Your task to perform on an android device: Empty the shopping cart on newegg.com. Image 0: 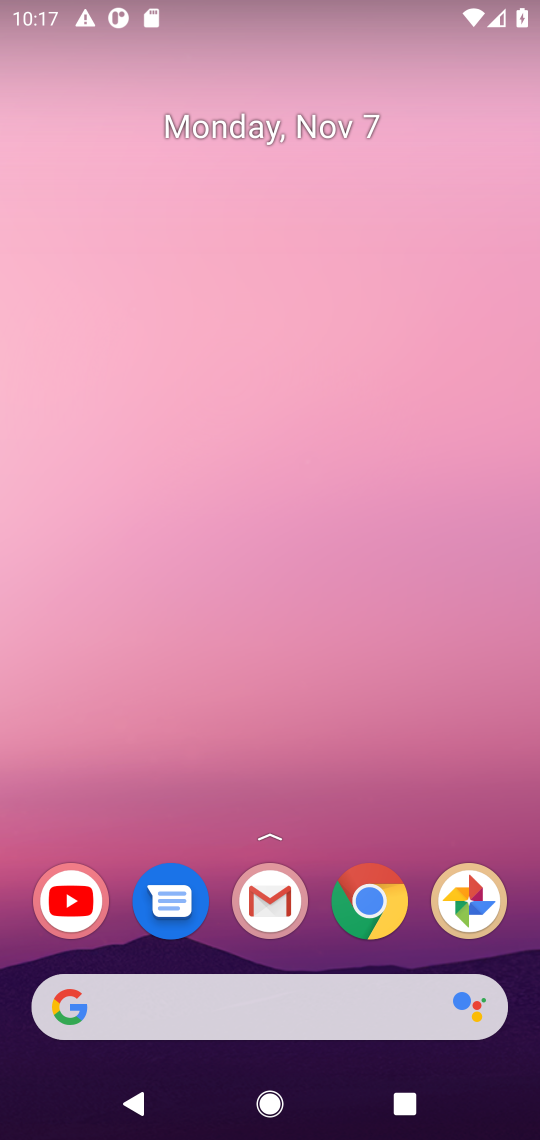
Step 0: click (379, 912)
Your task to perform on an android device: Empty the shopping cart on newegg.com. Image 1: 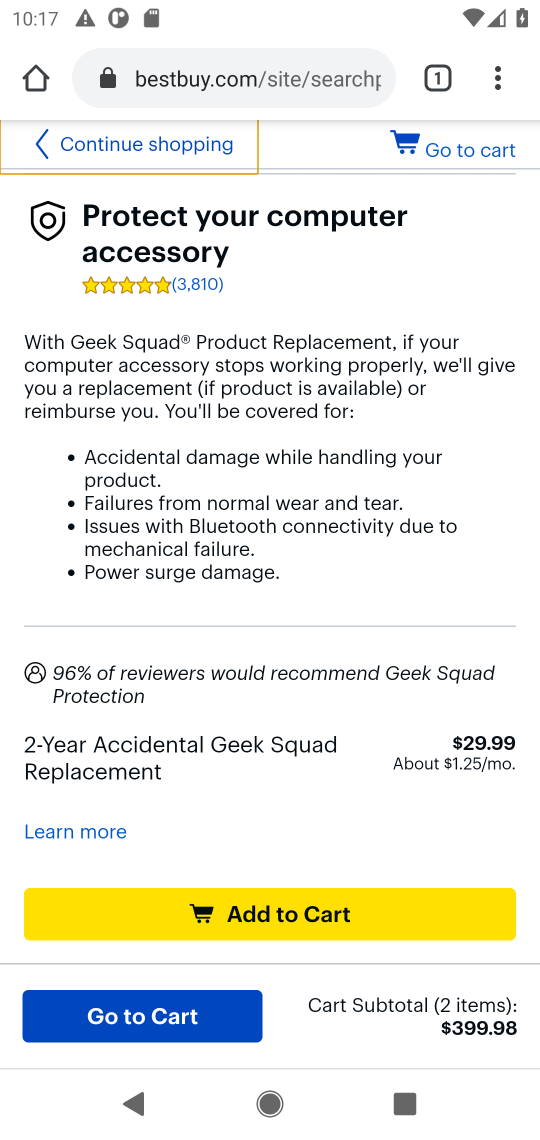
Step 1: click (241, 84)
Your task to perform on an android device: Empty the shopping cart on newegg.com. Image 2: 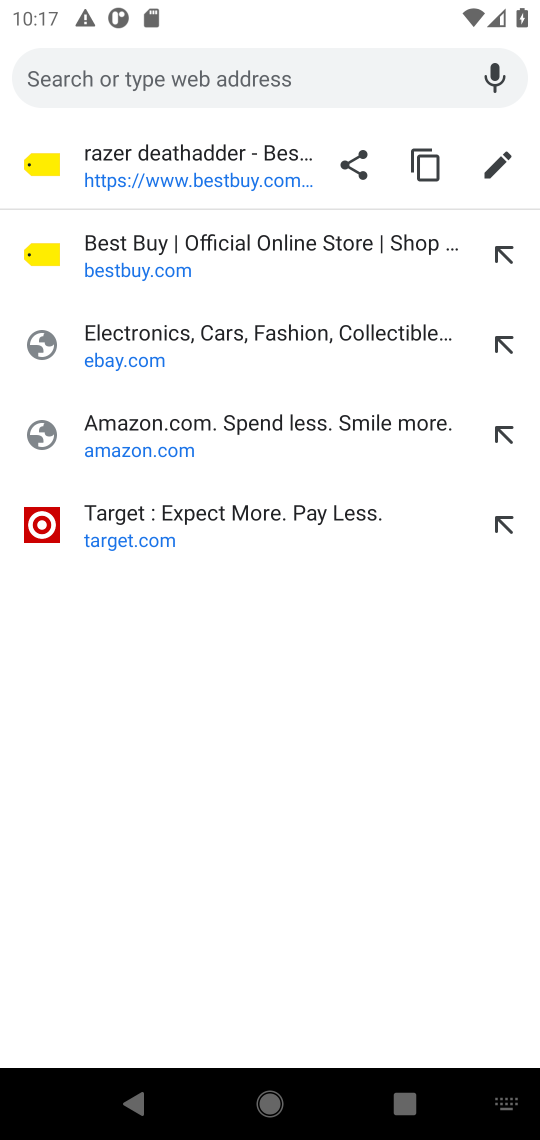
Step 2: type "newegg.com"
Your task to perform on an android device: Empty the shopping cart on newegg.com. Image 3: 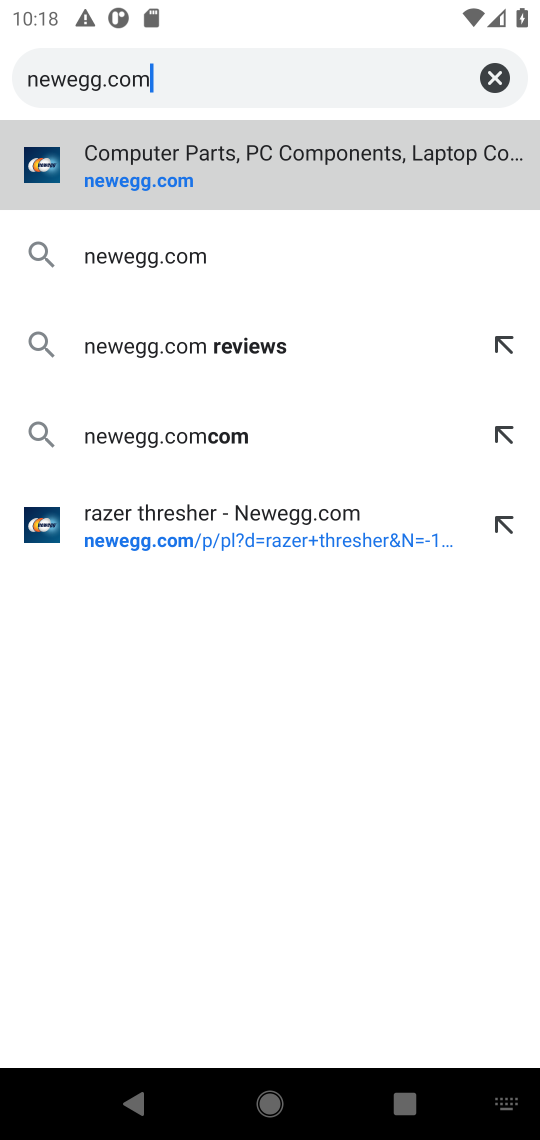
Step 3: click (298, 154)
Your task to perform on an android device: Empty the shopping cart on newegg.com. Image 4: 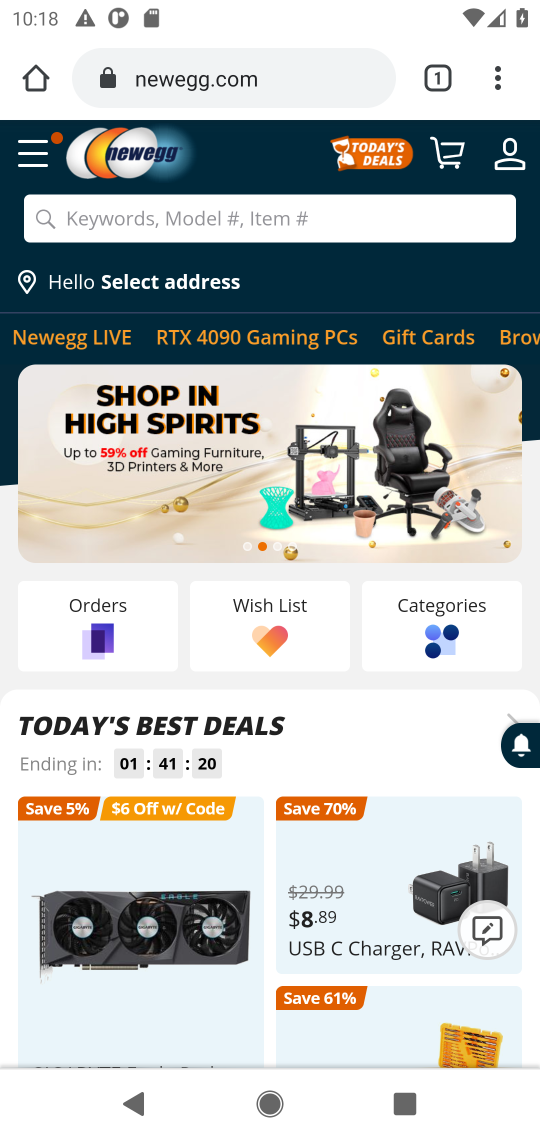
Step 4: click (450, 161)
Your task to perform on an android device: Empty the shopping cart on newegg.com. Image 5: 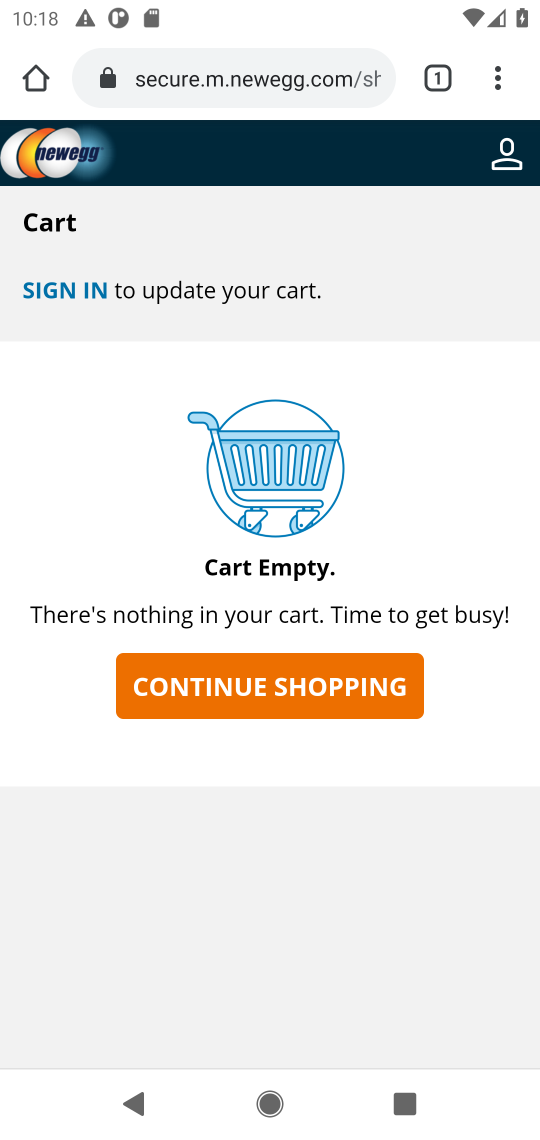
Step 5: task complete